Your task to perform on an android device: change notification settings in the gmail app Image 0: 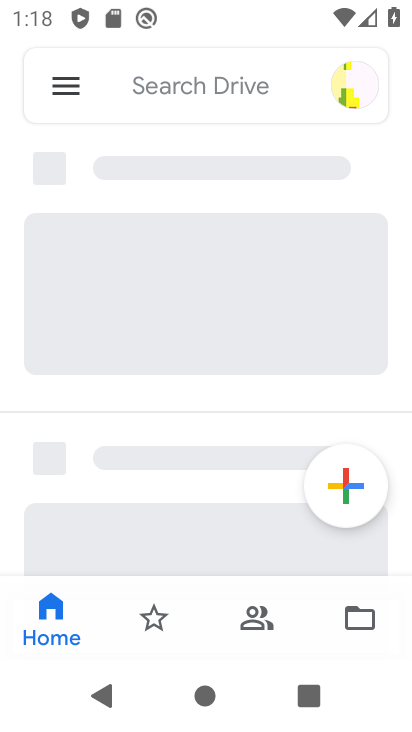
Step 0: press home button
Your task to perform on an android device: change notification settings in the gmail app Image 1: 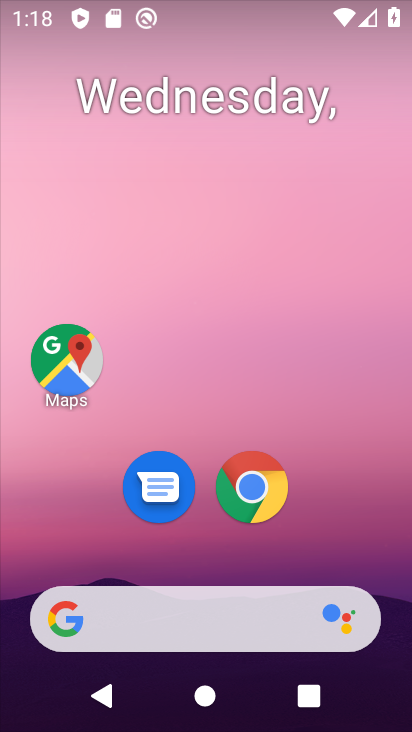
Step 1: drag from (204, 546) to (257, 61)
Your task to perform on an android device: change notification settings in the gmail app Image 2: 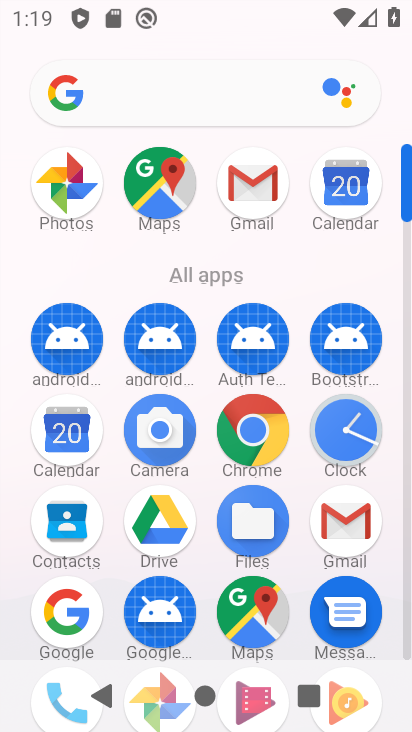
Step 2: click (363, 512)
Your task to perform on an android device: change notification settings in the gmail app Image 3: 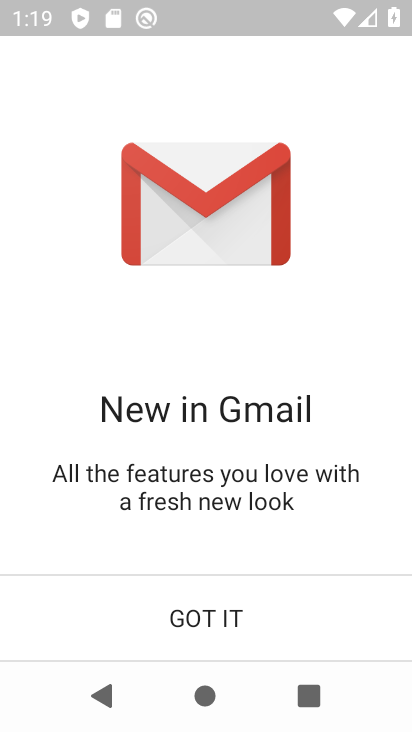
Step 3: click (187, 587)
Your task to perform on an android device: change notification settings in the gmail app Image 4: 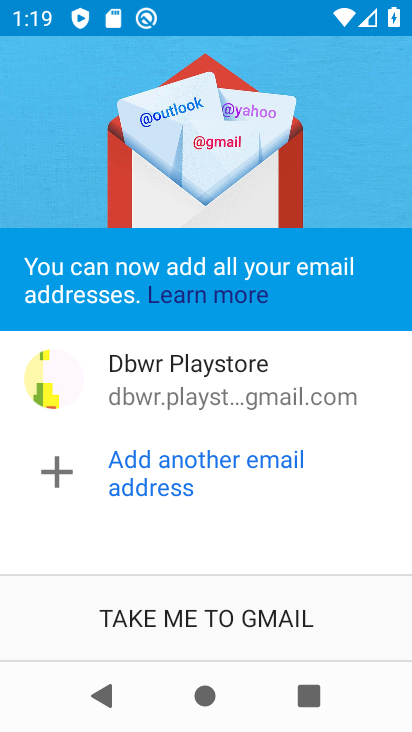
Step 4: click (185, 622)
Your task to perform on an android device: change notification settings in the gmail app Image 5: 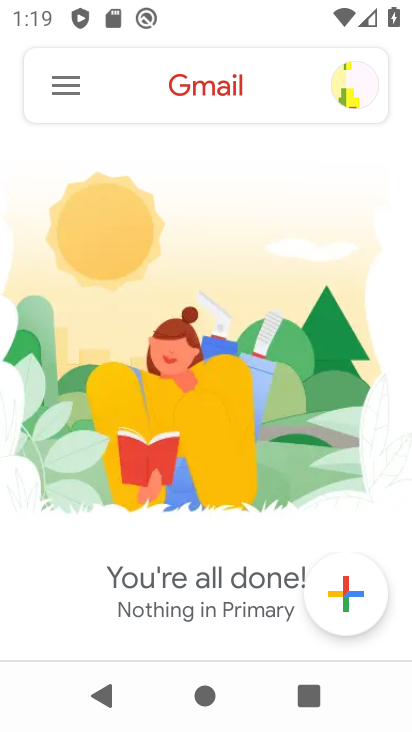
Step 5: click (61, 88)
Your task to perform on an android device: change notification settings in the gmail app Image 6: 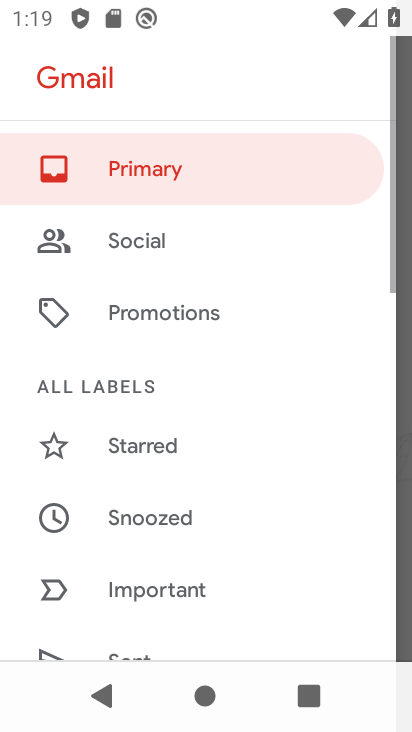
Step 6: drag from (192, 418) to (174, 3)
Your task to perform on an android device: change notification settings in the gmail app Image 7: 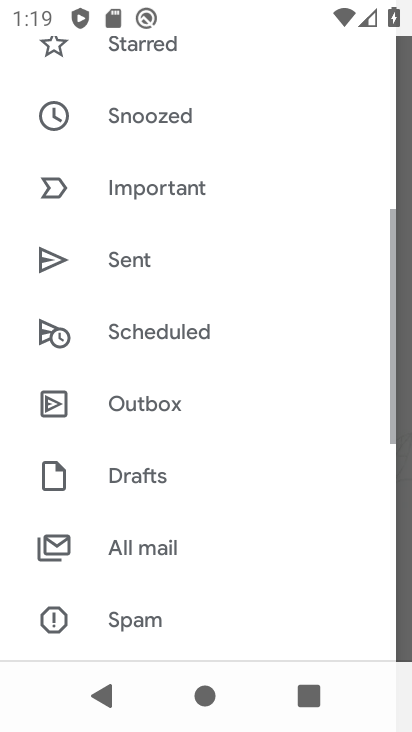
Step 7: drag from (164, 576) to (153, 60)
Your task to perform on an android device: change notification settings in the gmail app Image 8: 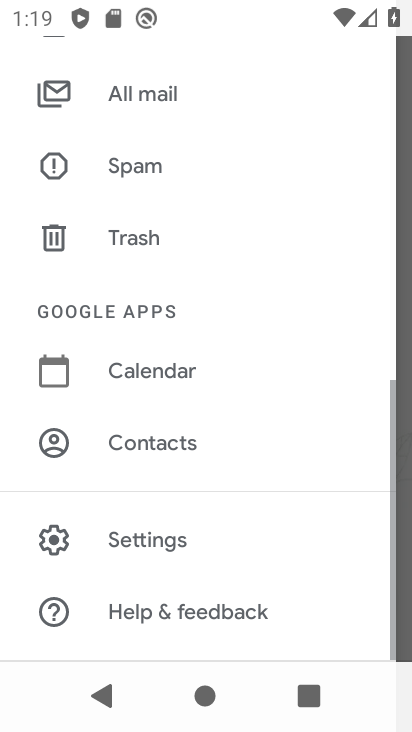
Step 8: click (142, 528)
Your task to perform on an android device: change notification settings in the gmail app Image 9: 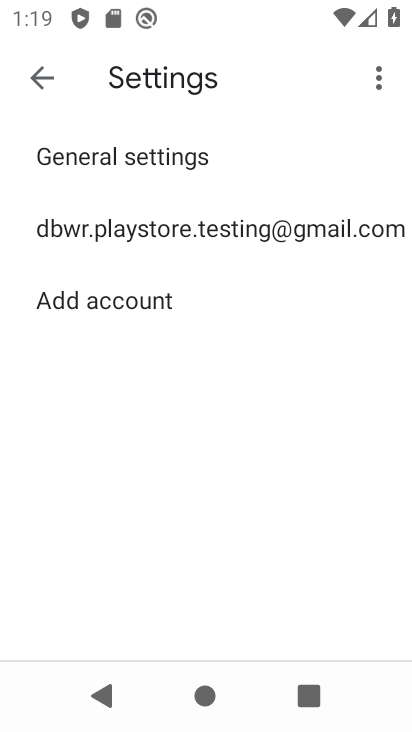
Step 9: click (124, 154)
Your task to perform on an android device: change notification settings in the gmail app Image 10: 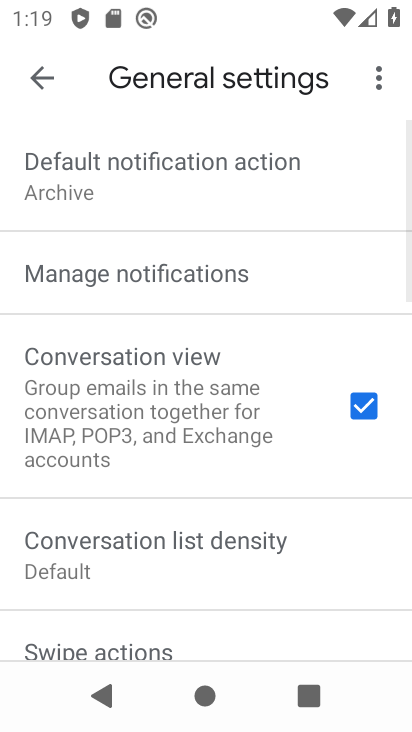
Step 10: click (142, 274)
Your task to perform on an android device: change notification settings in the gmail app Image 11: 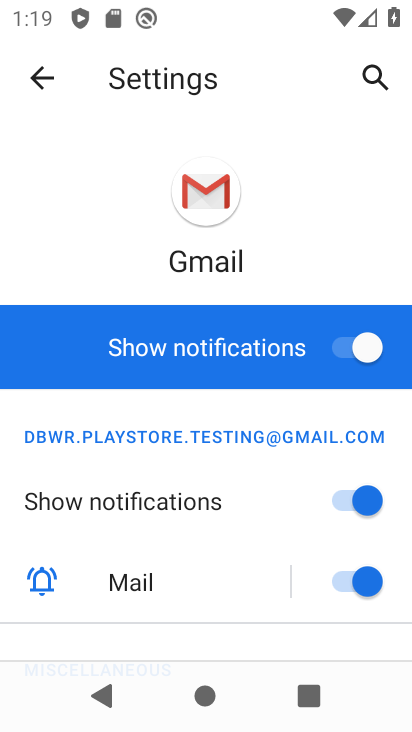
Step 11: click (366, 351)
Your task to perform on an android device: change notification settings in the gmail app Image 12: 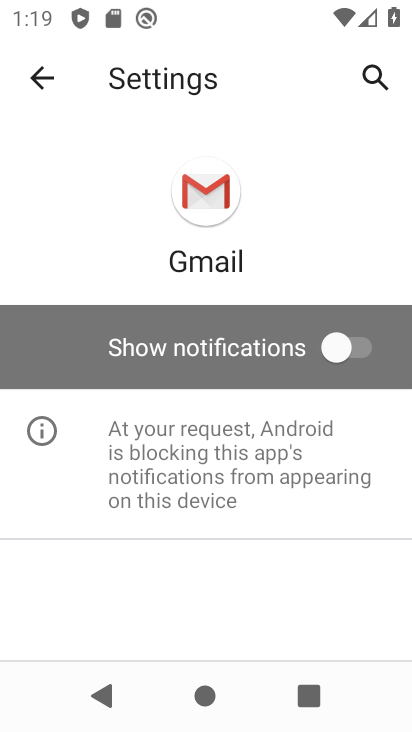
Step 12: task complete